Your task to perform on an android device: toggle pop-ups in chrome Image 0: 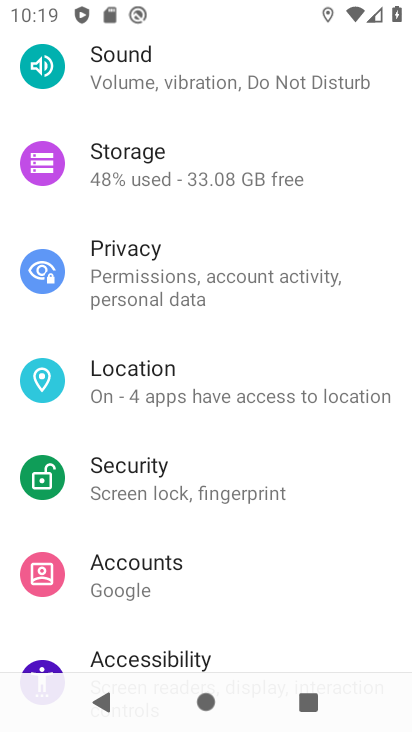
Step 0: press home button
Your task to perform on an android device: toggle pop-ups in chrome Image 1: 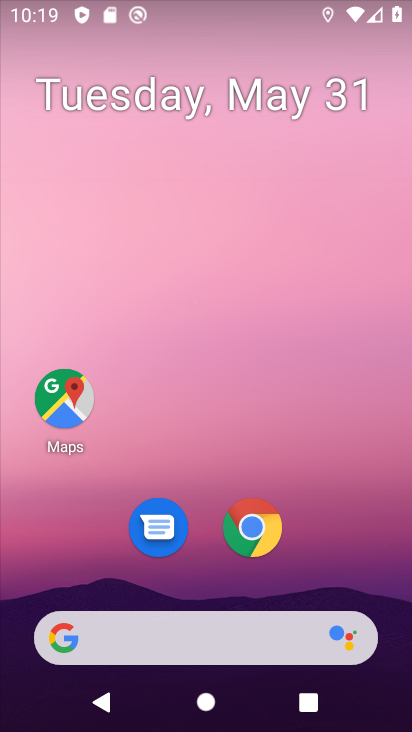
Step 1: click (263, 544)
Your task to perform on an android device: toggle pop-ups in chrome Image 2: 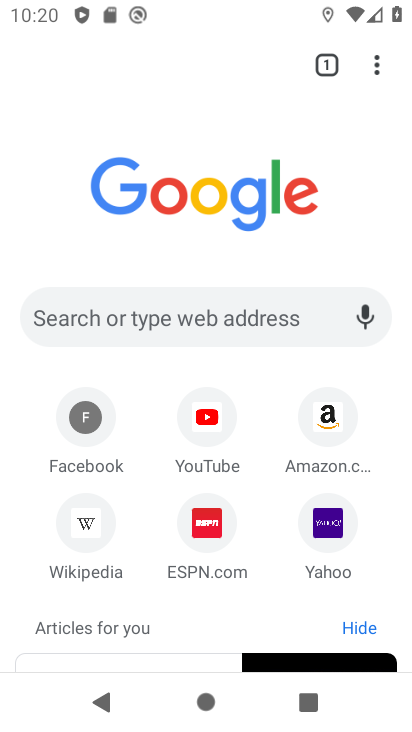
Step 2: click (377, 63)
Your task to perform on an android device: toggle pop-ups in chrome Image 3: 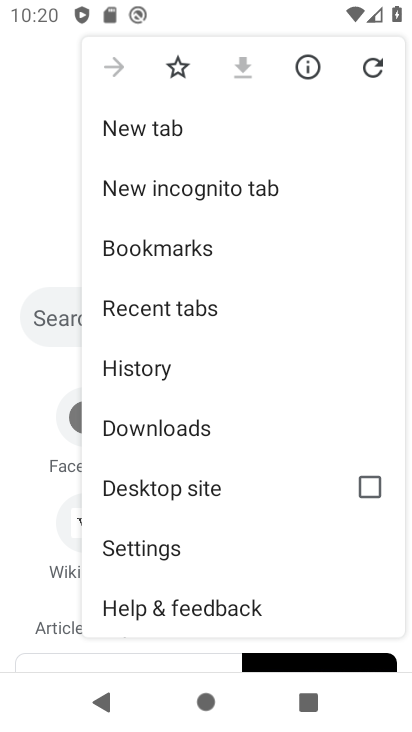
Step 3: click (194, 556)
Your task to perform on an android device: toggle pop-ups in chrome Image 4: 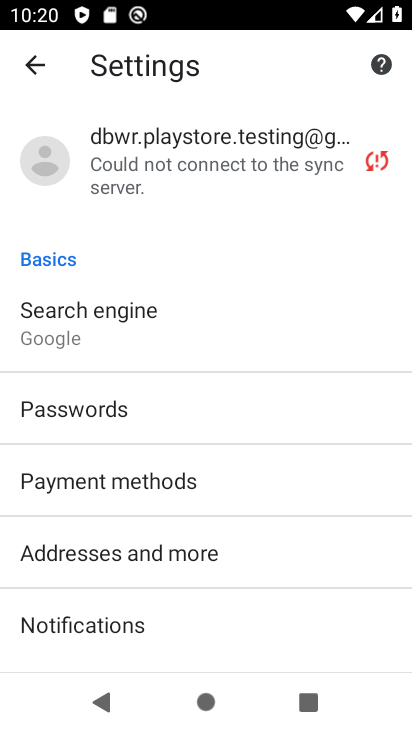
Step 4: drag from (206, 602) to (200, 276)
Your task to perform on an android device: toggle pop-ups in chrome Image 5: 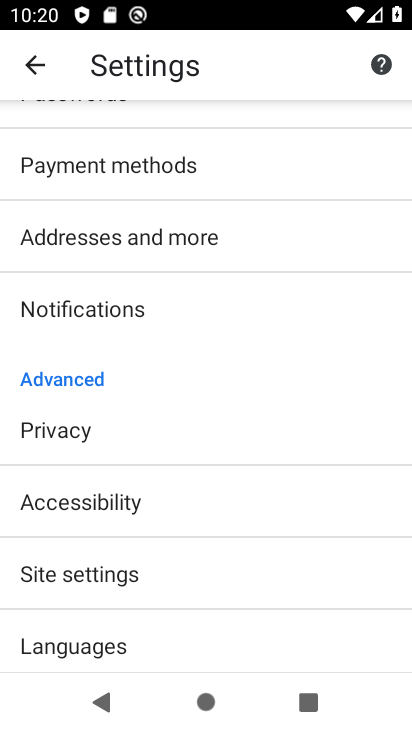
Step 5: drag from (220, 619) to (229, 419)
Your task to perform on an android device: toggle pop-ups in chrome Image 6: 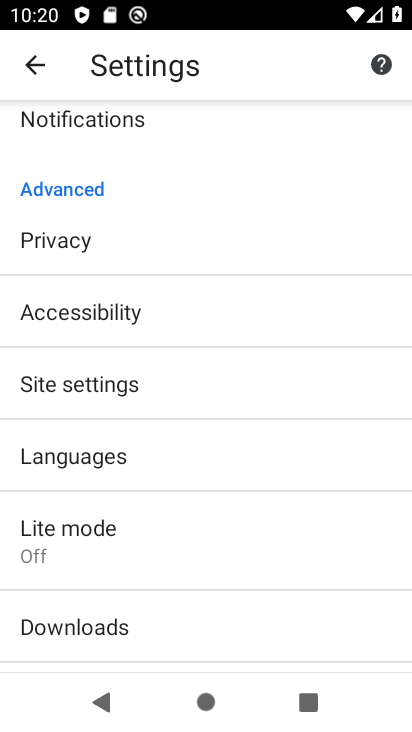
Step 6: click (176, 390)
Your task to perform on an android device: toggle pop-ups in chrome Image 7: 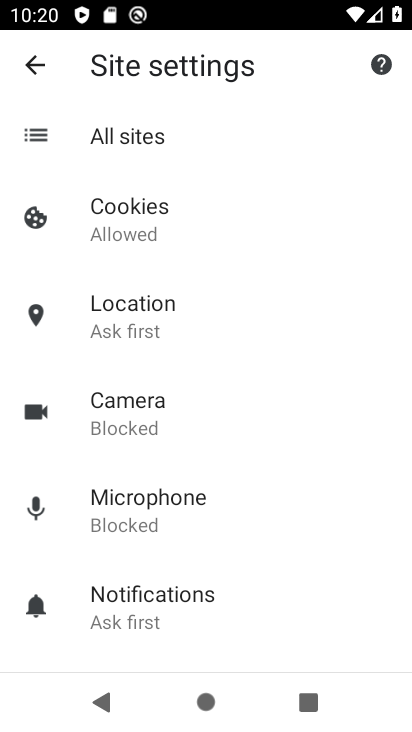
Step 7: drag from (204, 558) to (196, 337)
Your task to perform on an android device: toggle pop-ups in chrome Image 8: 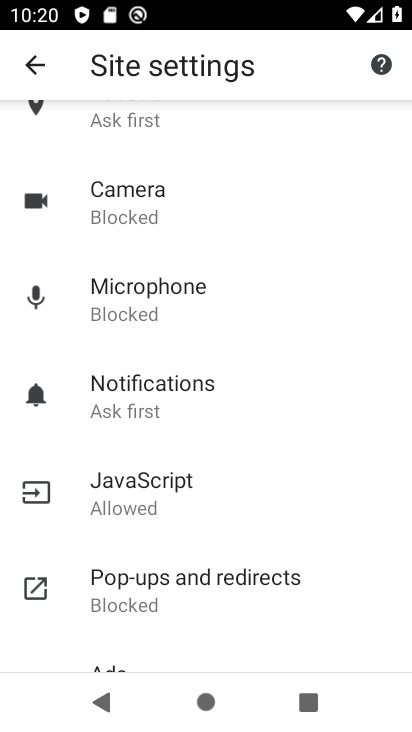
Step 8: click (195, 600)
Your task to perform on an android device: toggle pop-ups in chrome Image 9: 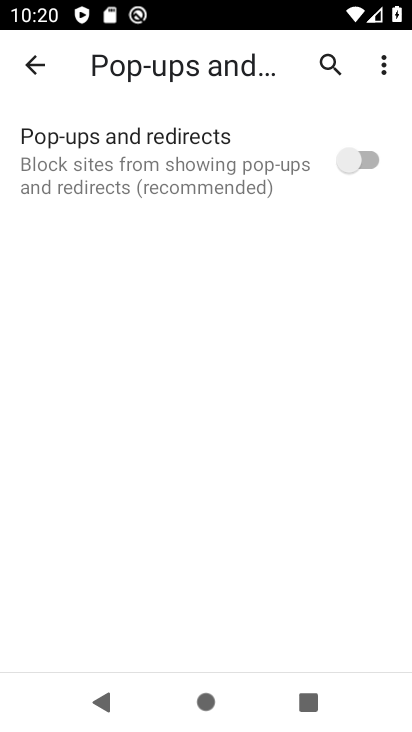
Step 9: drag from (195, 601) to (188, 384)
Your task to perform on an android device: toggle pop-ups in chrome Image 10: 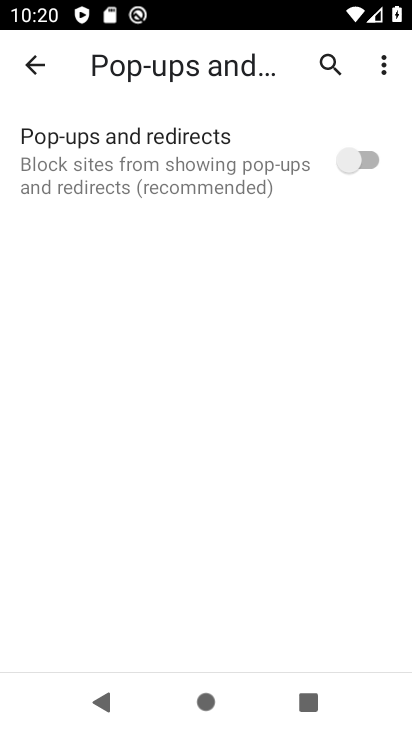
Step 10: click (373, 150)
Your task to perform on an android device: toggle pop-ups in chrome Image 11: 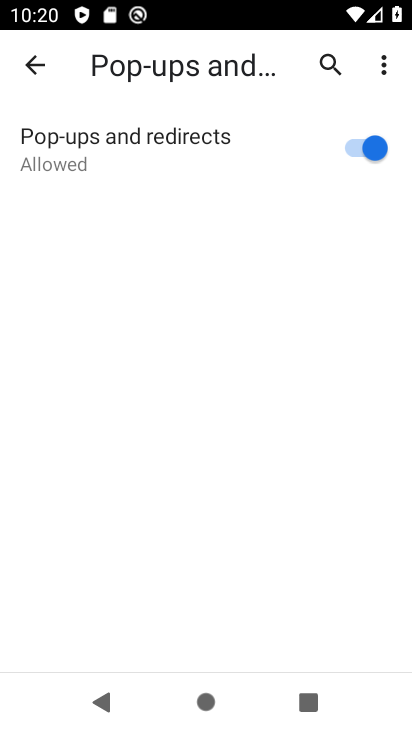
Step 11: task complete